Your task to perform on an android device: Open notification settings Image 0: 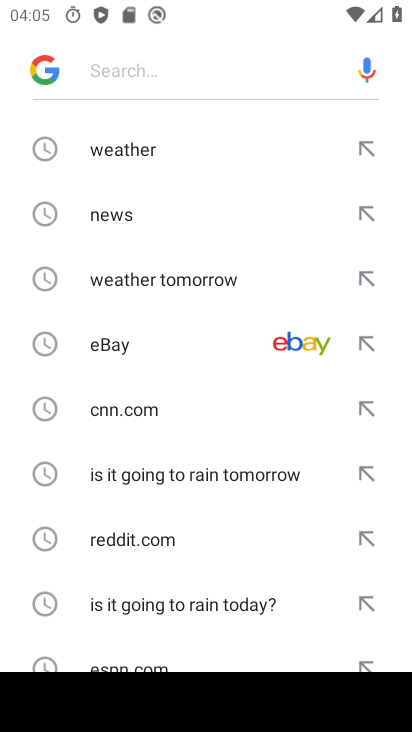
Step 0: press home button
Your task to perform on an android device: Open notification settings Image 1: 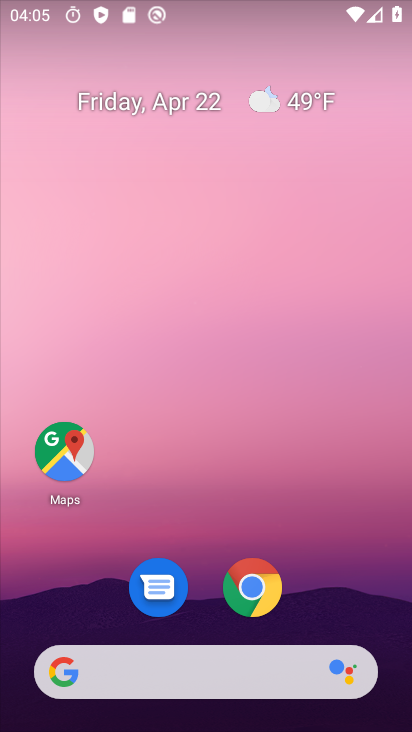
Step 1: drag from (367, 611) to (362, 13)
Your task to perform on an android device: Open notification settings Image 2: 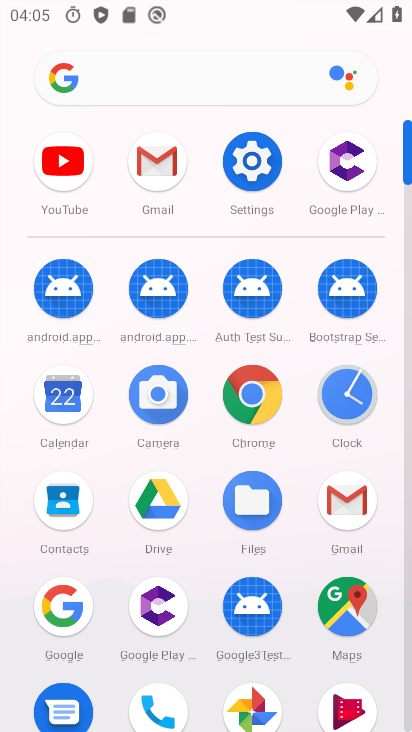
Step 2: click (253, 161)
Your task to perform on an android device: Open notification settings Image 3: 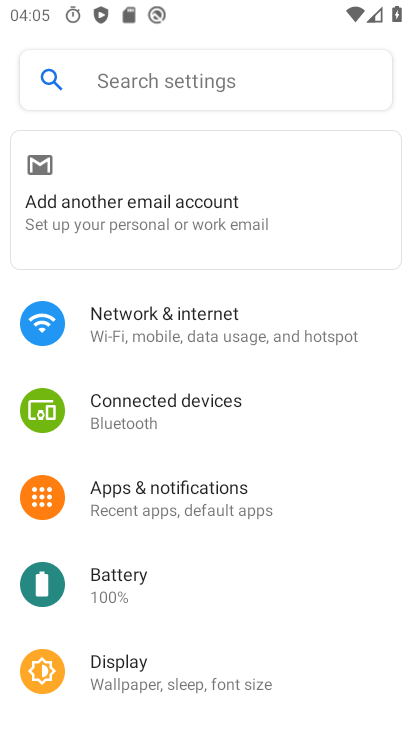
Step 3: click (171, 495)
Your task to perform on an android device: Open notification settings Image 4: 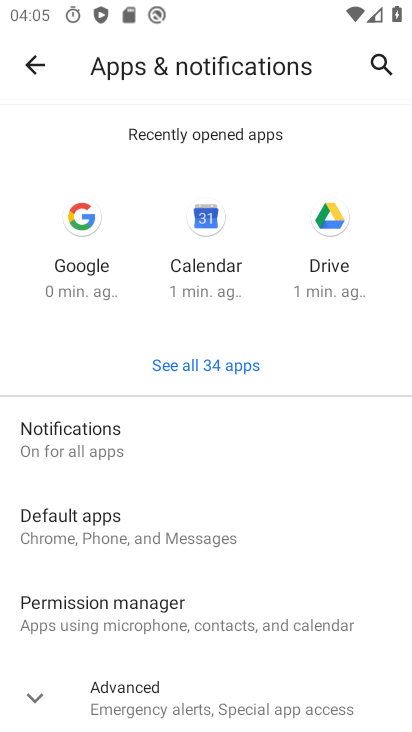
Step 4: task complete